Your task to perform on an android device: choose inbox layout in the gmail app Image 0: 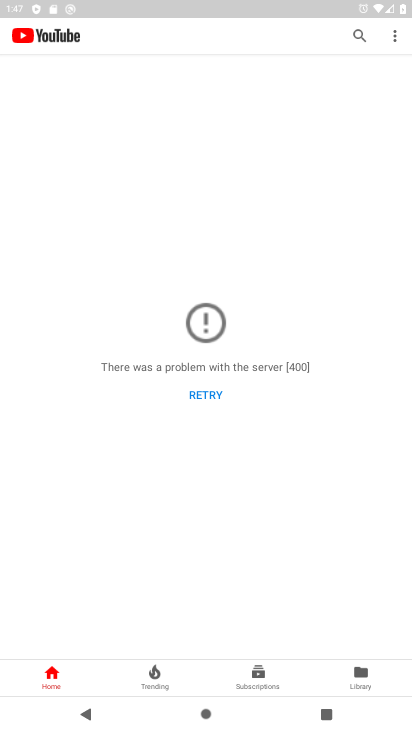
Step 0: press home button
Your task to perform on an android device: choose inbox layout in the gmail app Image 1: 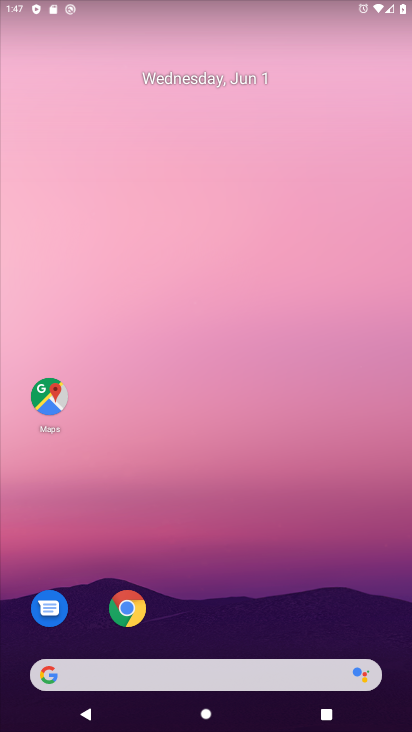
Step 1: drag from (159, 649) to (236, 213)
Your task to perform on an android device: choose inbox layout in the gmail app Image 2: 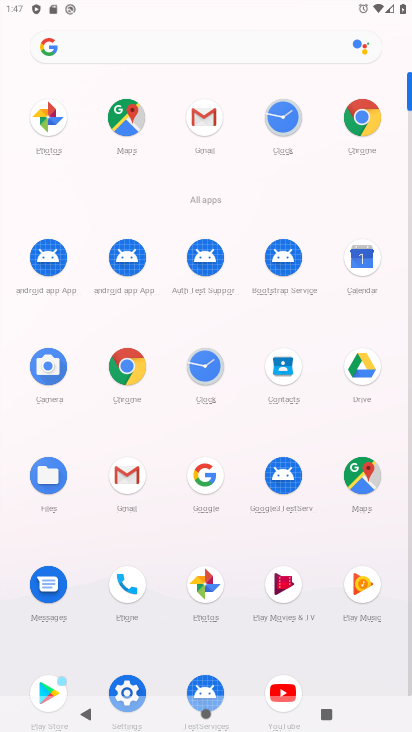
Step 2: click (120, 491)
Your task to perform on an android device: choose inbox layout in the gmail app Image 3: 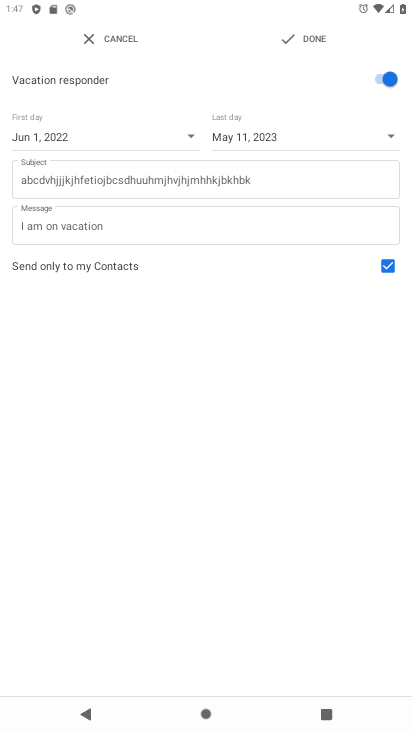
Step 3: press back button
Your task to perform on an android device: choose inbox layout in the gmail app Image 4: 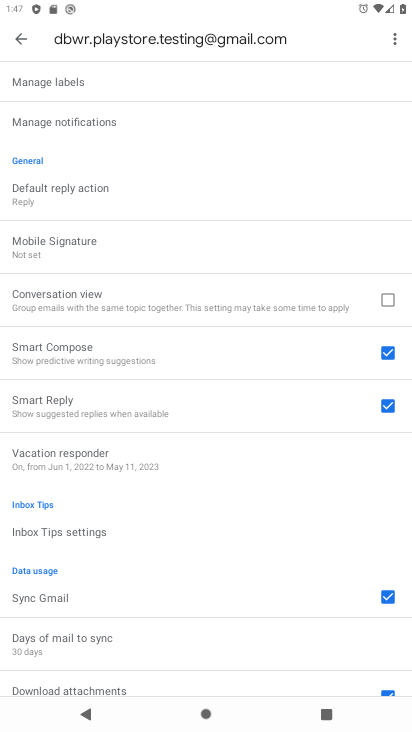
Step 4: drag from (72, 180) to (55, 648)
Your task to perform on an android device: choose inbox layout in the gmail app Image 5: 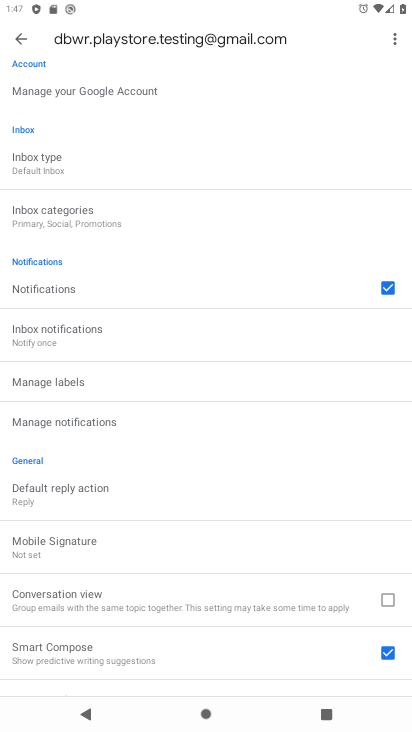
Step 5: click (106, 178)
Your task to perform on an android device: choose inbox layout in the gmail app Image 6: 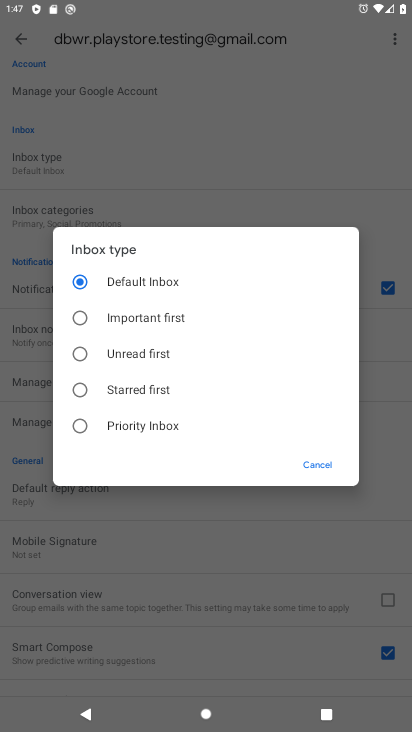
Step 6: click (218, 442)
Your task to perform on an android device: choose inbox layout in the gmail app Image 7: 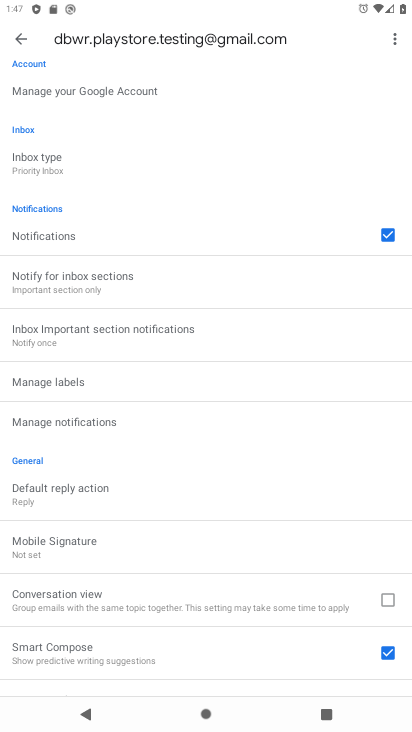
Step 7: task complete